Your task to perform on an android device: allow cookies in the chrome app Image 0: 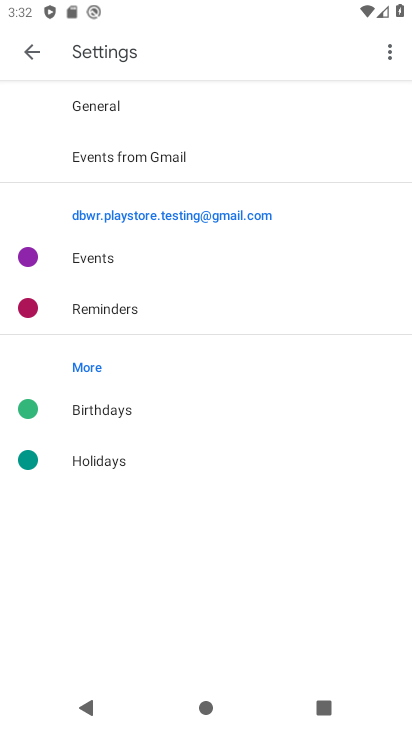
Step 0: press home button
Your task to perform on an android device: allow cookies in the chrome app Image 1: 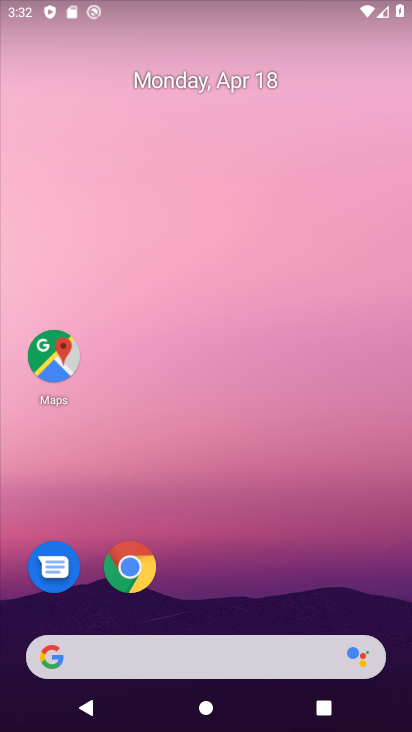
Step 1: click (133, 576)
Your task to perform on an android device: allow cookies in the chrome app Image 2: 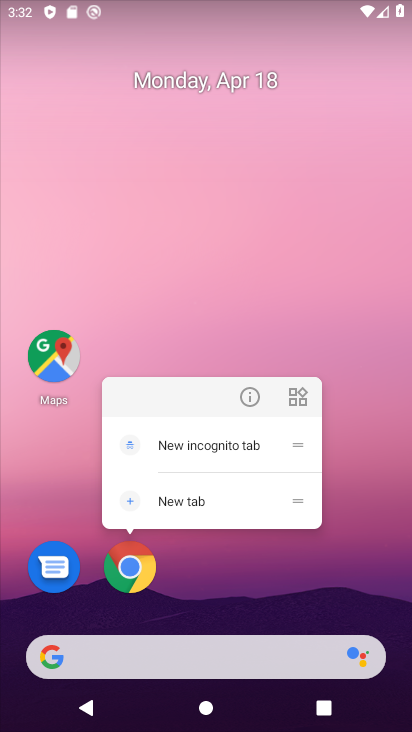
Step 2: click (140, 566)
Your task to perform on an android device: allow cookies in the chrome app Image 3: 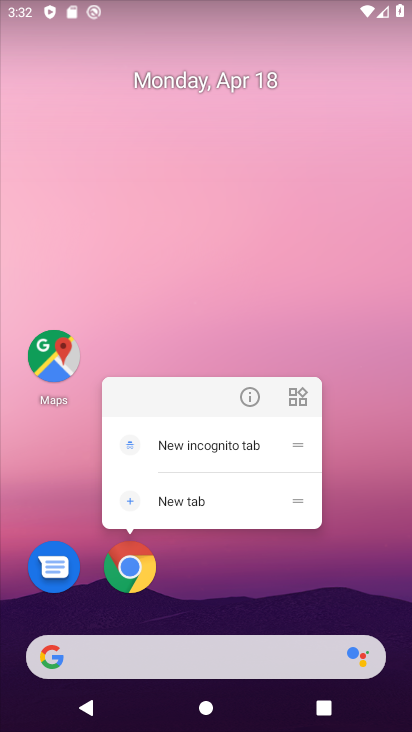
Step 3: click (144, 576)
Your task to perform on an android device: allow cookies in the chrome app Image 4: 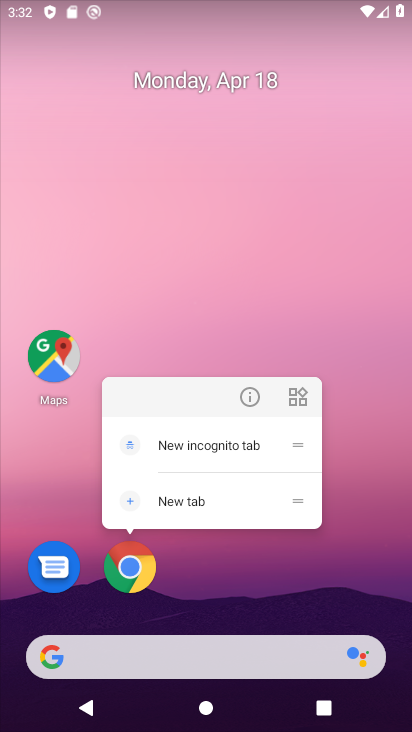
Step 4: click (141, 573)
Your task to perform on an android device: allow cookies in the chrome app Image 5: 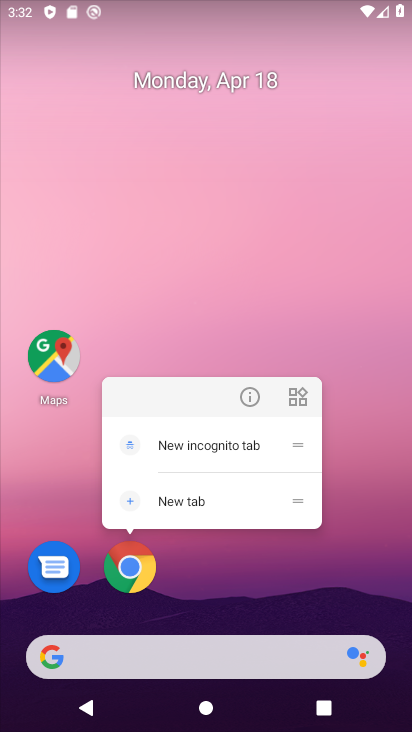
Step 5: click (140, 570)
Your task to perform on an android device: allow cookies in the chrome app Image 6: 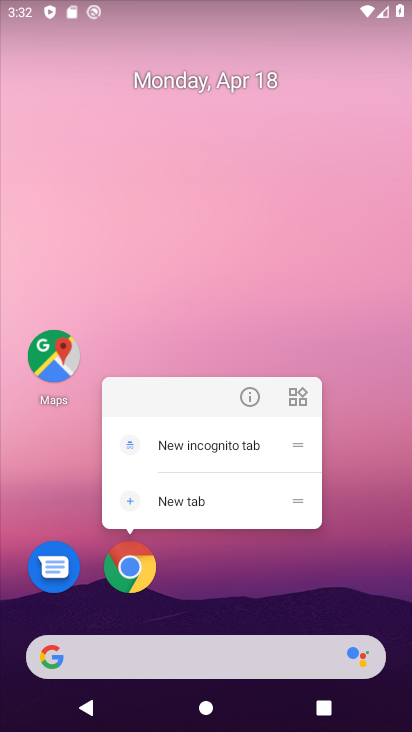
Step 6: click (140, 570)
Your task to perform on an android device: allow cookies in the chrome app Image 7: 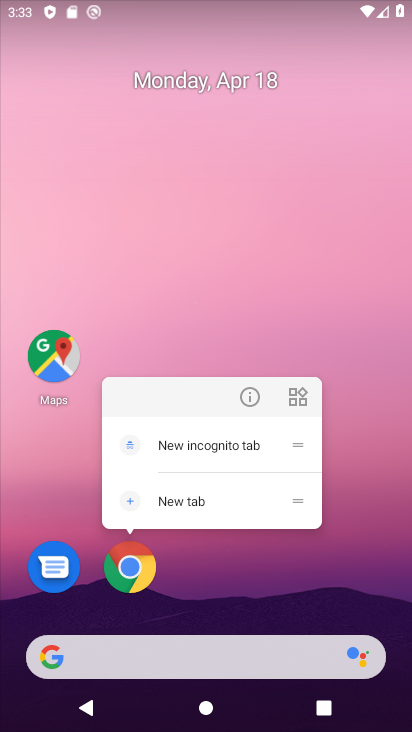
Step 7: click (140, 566)
Your task to perform on an android device: allow cookies in the chrome app Image 8: 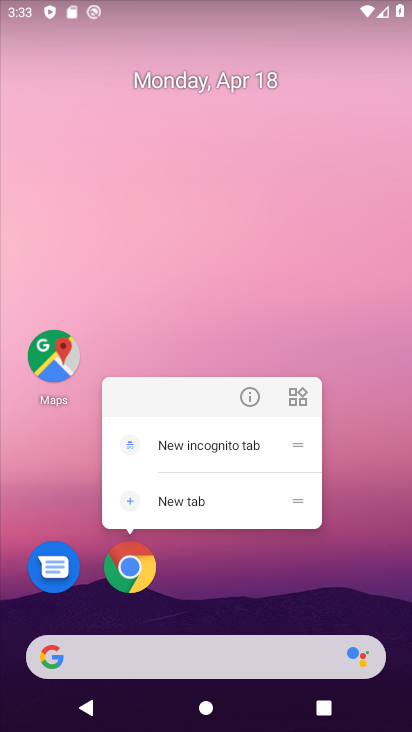
Step 8: click (140, 566)
Your task to perform on an android device: allow cookies in the chrome app Image 9: 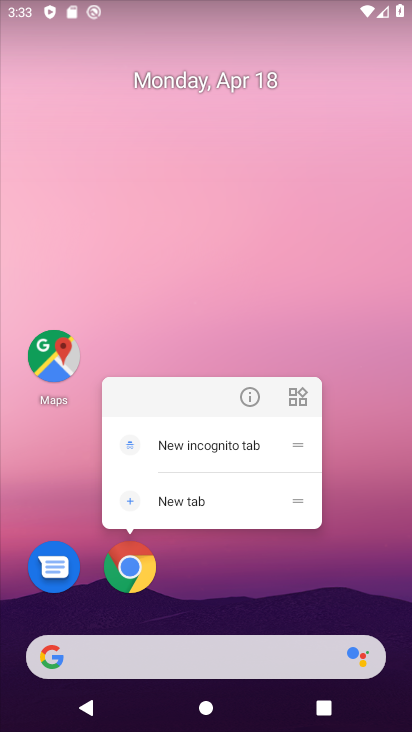
Step 9: click (134, 587)
Your task to perform on an android device: allow cookies in the chrome app Image 10: 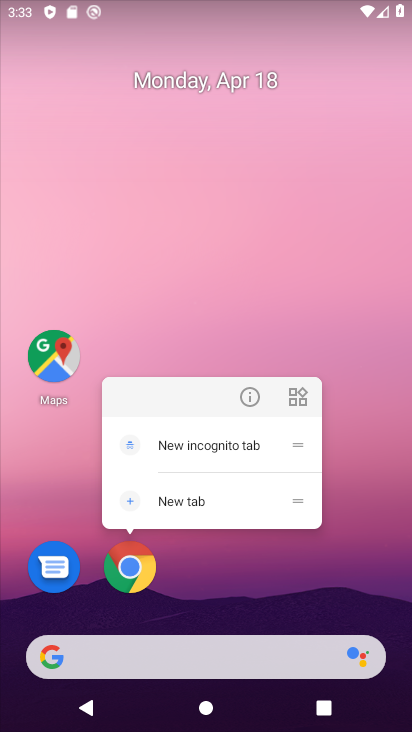
Step 10: click (135, 577)
Your task to perform on an android device: allow cookies in the chrome app Image 11: 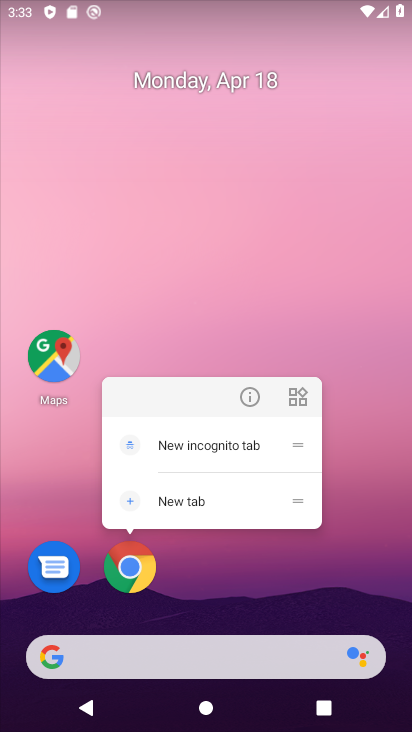
Step 11: click (137, 569)
Your task to perform on an android device: allow cookies in the chrome app Image 12: 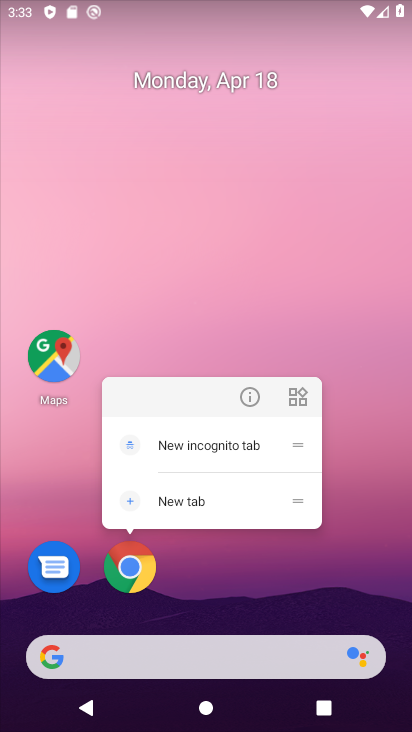
Step 12: click (137, 569)
Your task to perform on an android device: allow cookies in the chrome app Image 13: 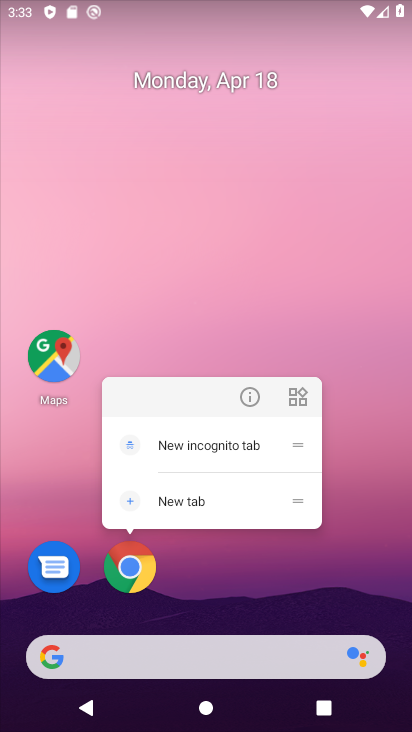
Step 13: click (220, 571)
Your task to perform on an android device: allow cookies in the chrome app Image 14: 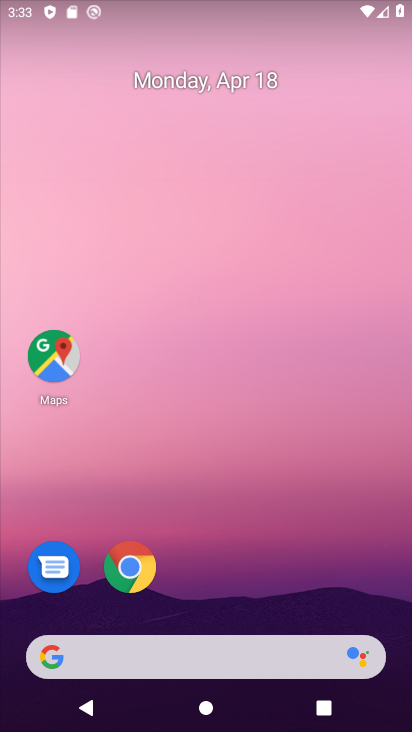
Step 14: click (142, 581)
Your task to perform on an android device: allow cookies in the chrome app Image 15: 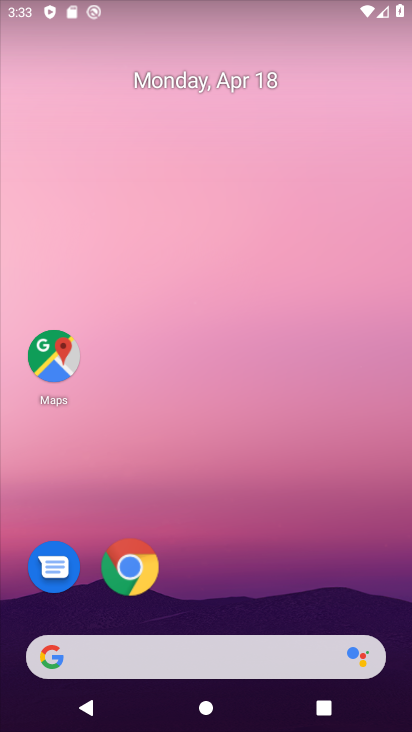
Step 15: click (142, 581)
Your task to perform on an android device: allow cookies in the chrome app Image 16: 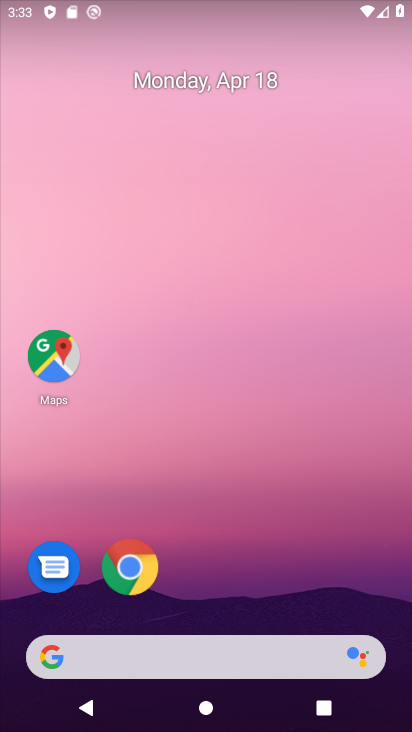
Step 16: click (142, 581)
Your task to perform on an android device: allow cookies in the chrome app Image 17: 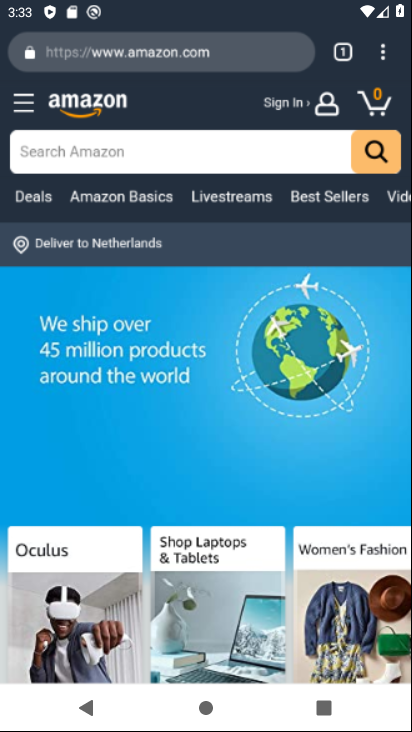
Step 17: click (142, 581)
Your task to perform on an android device: allow cookies in the chrome app Image 18: 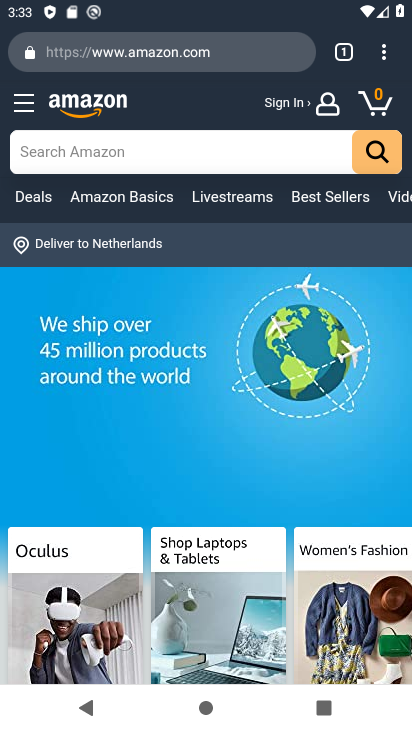
Step 18: drag from (383, 58) to (227, 606)
Your task to perform on an android device: allow cookies in the chrome app Image 19: 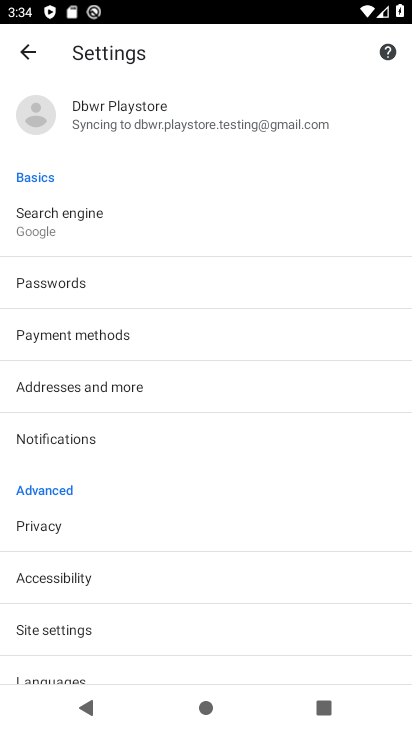
Step 19: drag from (181, 601) to (223, 339)
Your task to perform on an android device: allow cookies in the chrome app Image 20: 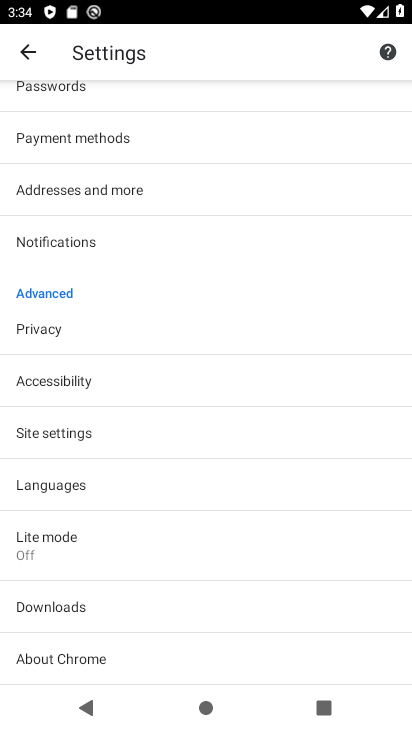
Step 20: click (67, 426)
Your task to perform on an android device: allow cookies in the chrome app Image 21: 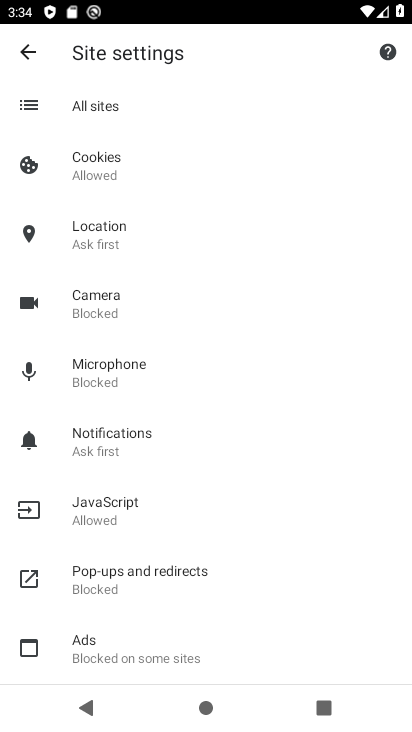
Step 21: click (144, 174)
Your task to perform on an android device: allow cookies in the chrome app Image 22: 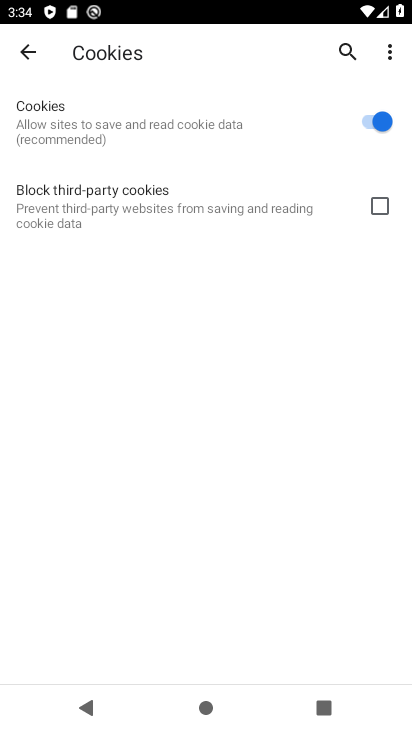
Step 22: task complete